Your task to perform on an android device: toggle location history Image 0: 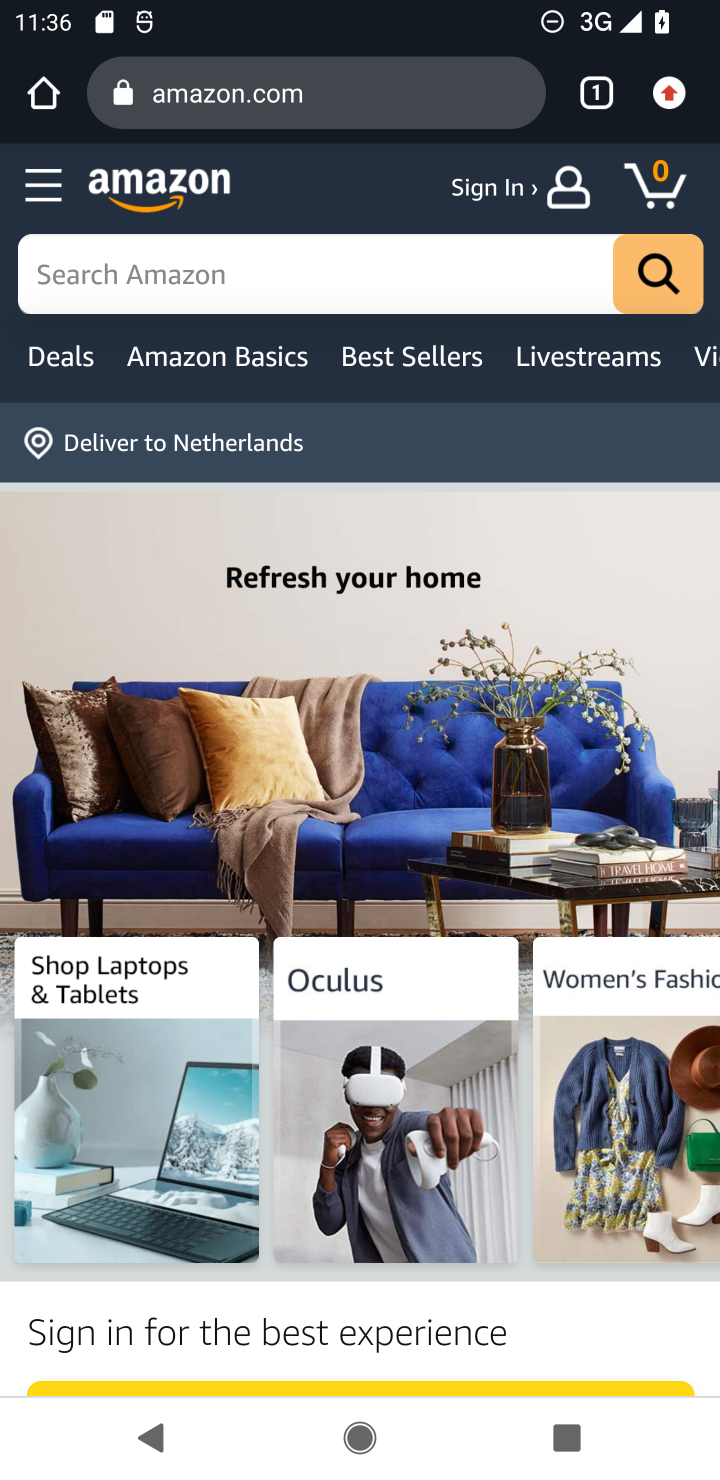
Step 0: press home button
Your task to perform on an android device: toggle location history Image 1: 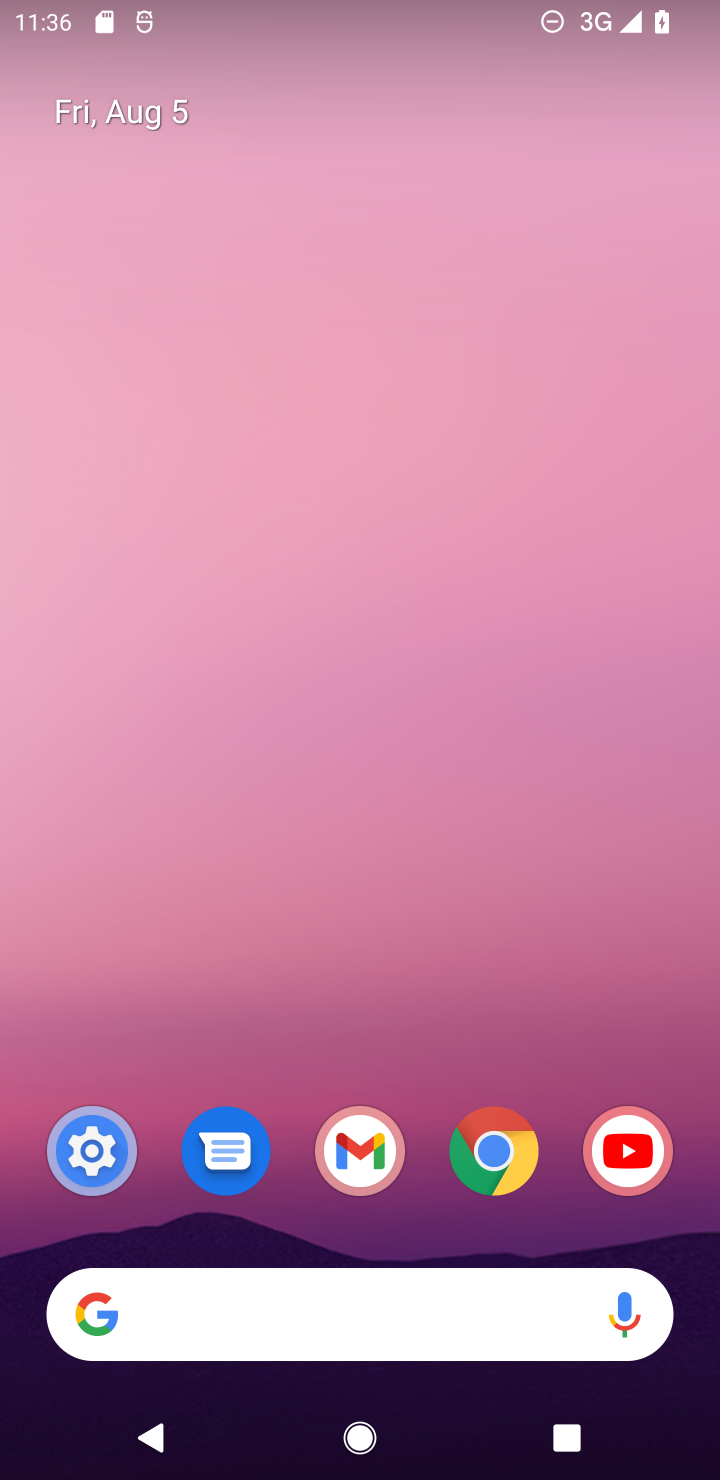
Step 1: click (91, 1147)
Your task to perform on an android device: toggle location history Image 2: 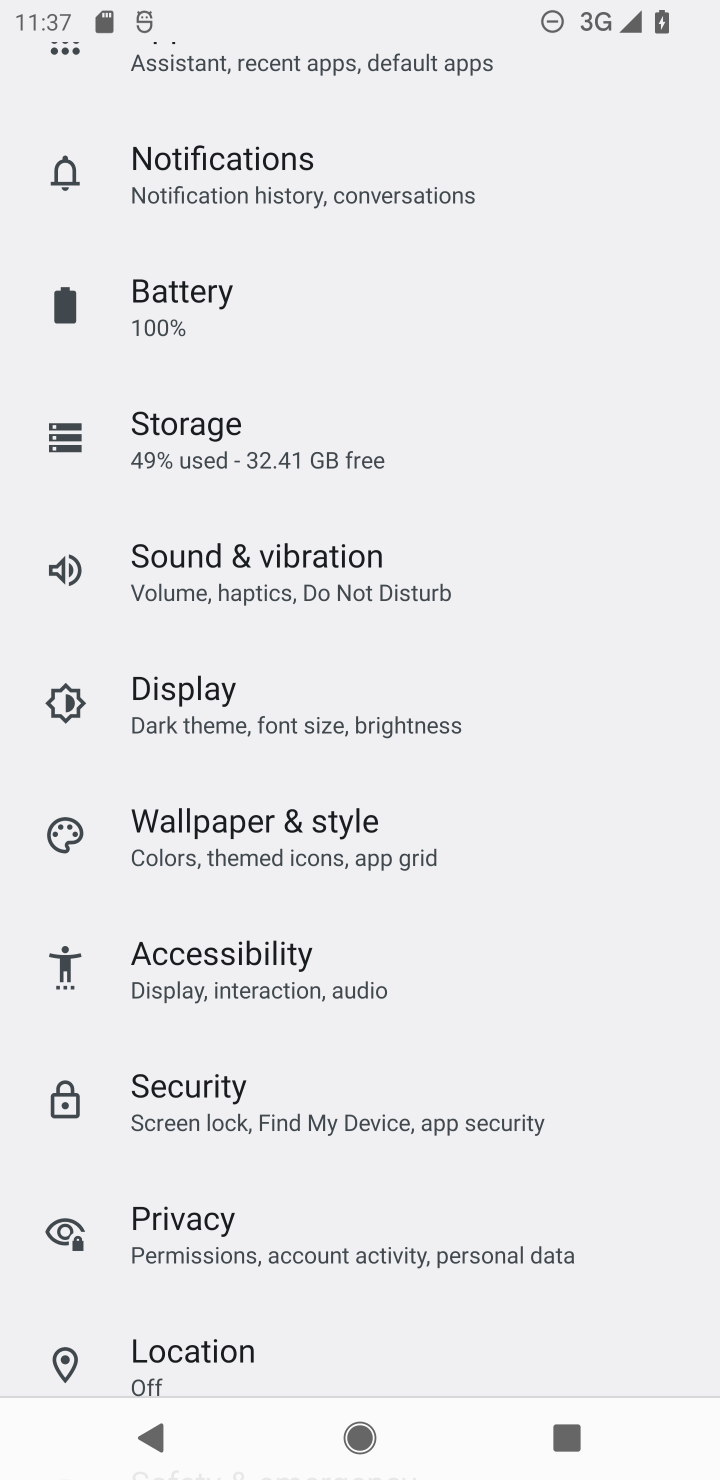
Step 2: click (166, 1365)
Your task to perform on an android device: toggle location history Image 3: 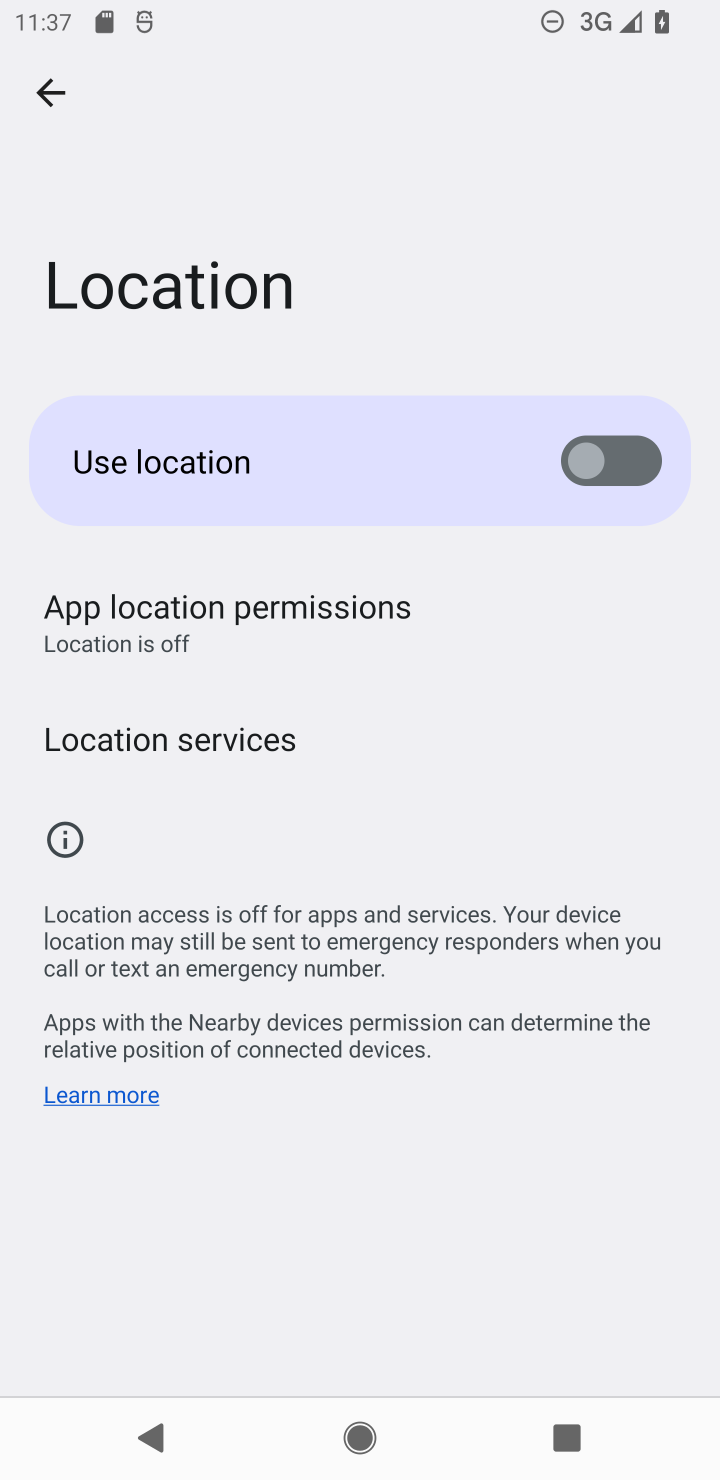
Step 3: click (229, 757)
Your task to perform on an android device: toggle location history Image 4: 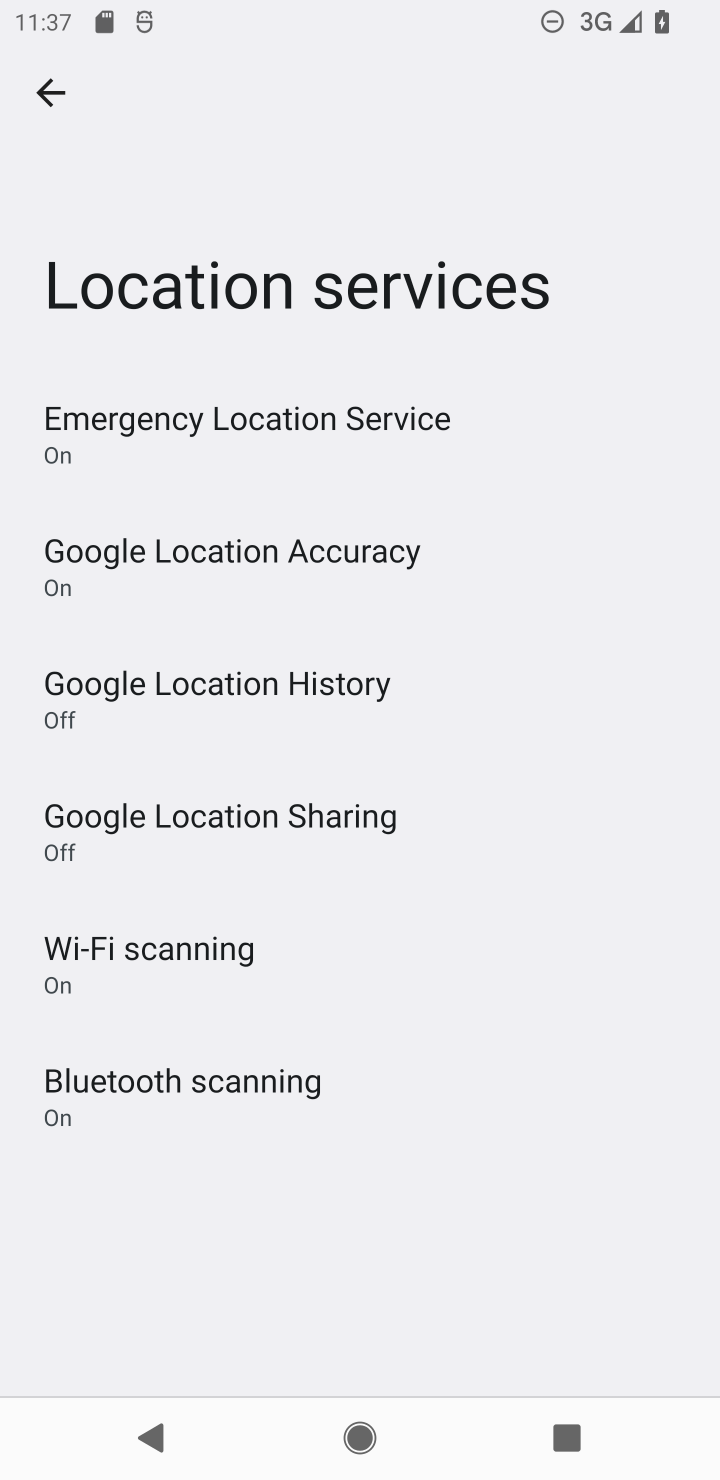
Step 4: click (278, 675)
Your task to perform on an android device: toggle location history Image 5: 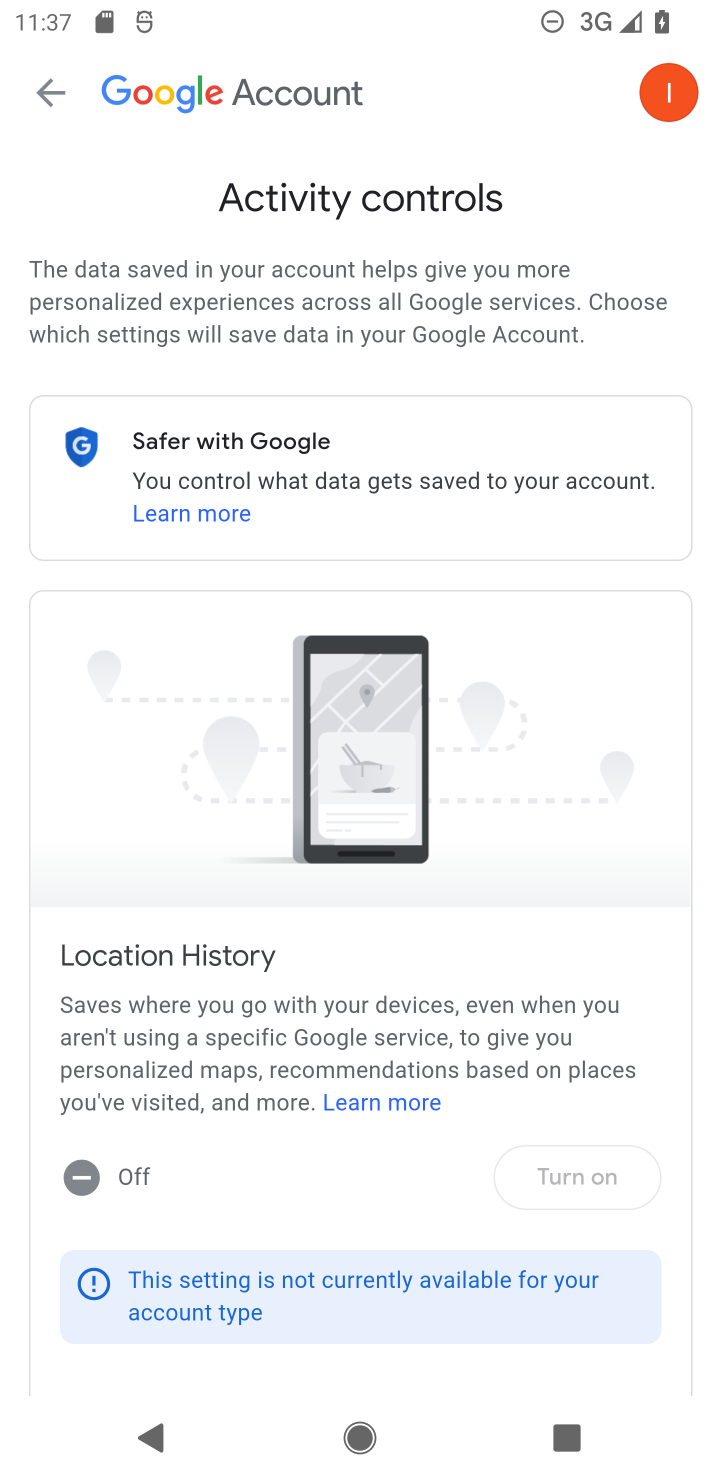
Step 5: task complete